Your task to perform on an android device: Add alienware aurora to the cart on costco.com, then select checkout. Image 0: 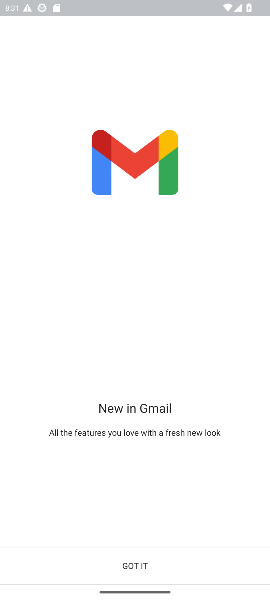
Step 0: press home button
Your task to perform on an android device: Add alienware aurora to the cart on costco.com, then select checkout. Image 1: 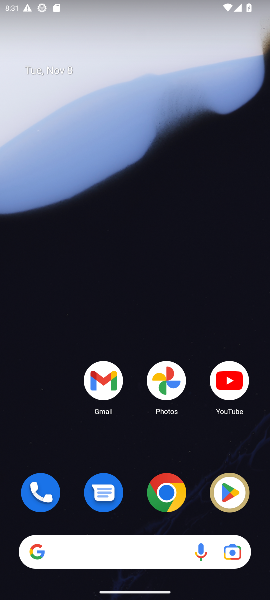
Step 1: click (179, 495)
Your task to perform on an android device: Add alienware aurora to the cart on costco.com, then select checkout. Image 2: 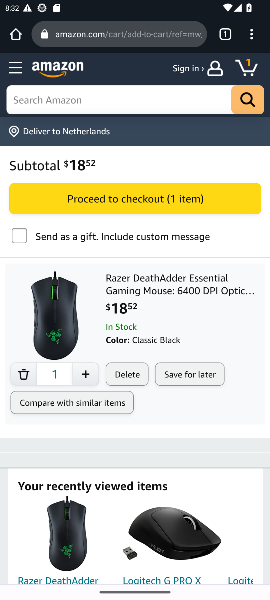
Step 2: click (136, 26)
Your task to perform on an android device: Add alienware aurora to the cart on costco.com, then select checkout. Image 3: 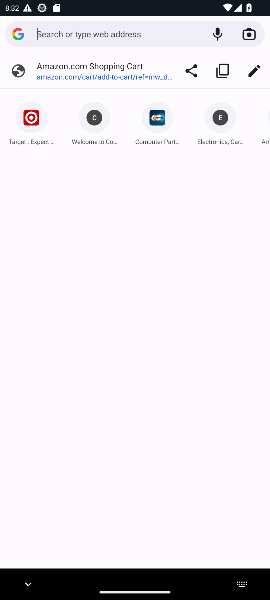
Step 3: type "costco.com"
Your task to perform on an android device: Add alienware aurora to the cart on costco.com, then select checkout. Image 4: 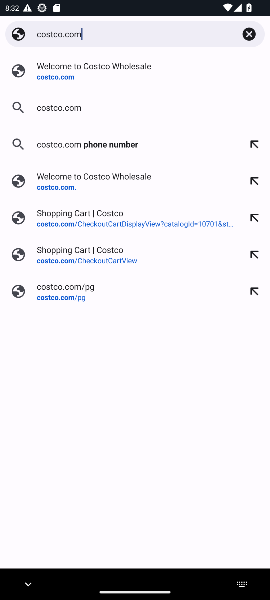
Step 4: click (67, 110)
Your task to perform on an android device: Add alienware aurora to the cart on costco.com, then select checkout. Image 5: 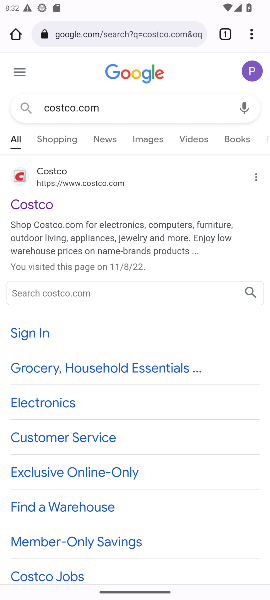
Step 5: click (58, 184)
Your task to perform on an android device: Add alienware aurora to the cart on costco.com, then select checkout. Image 6: 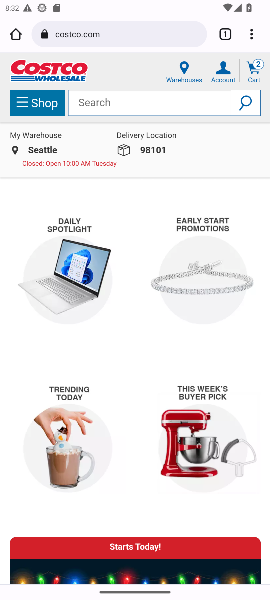
Step 6: click (218, 104)
Your task to perform on an android device: Add alienware aurora to the cart on costco.com, then select checkout. Image 7: 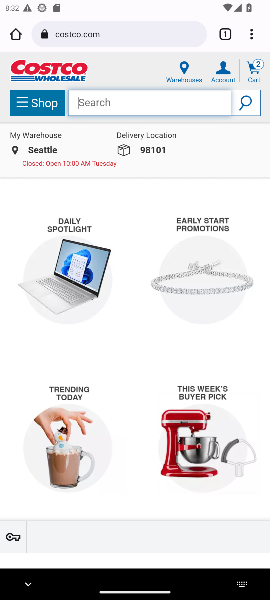
Step 7: type "alienware aurora "
Your task to perform on an android device: Add alienware aurora to the cart on costco.com, then select checkout. Image 8: 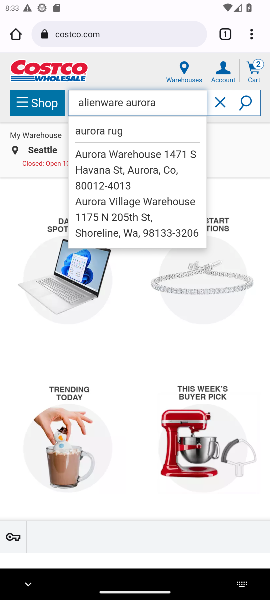
Step 8: click (235, 155)
Your task to perform on an android device: Add alienware aurora to the cart on costco.com, then select checkout. Image 9: 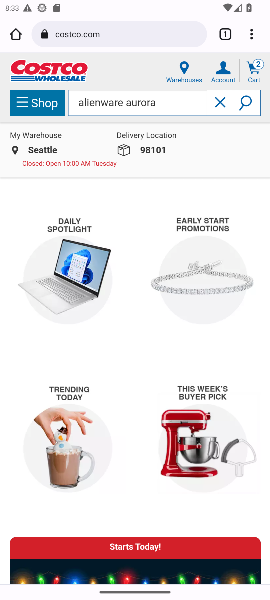
Step 9: task complete